Your task to perform on an android device: turn on showing notifications on the lock screen Image 0: 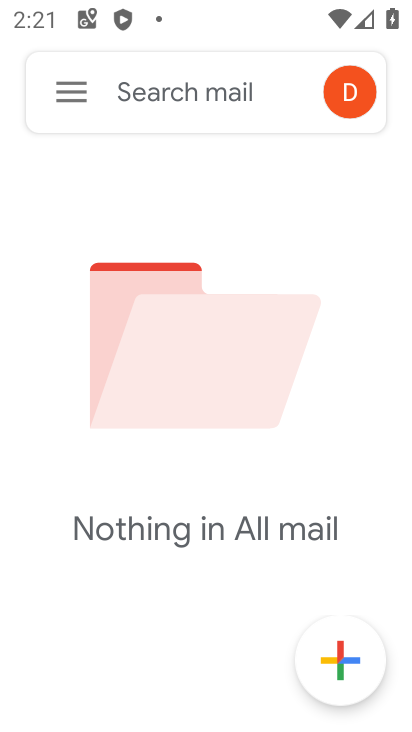
Step 0: press home button
Your task to perform on an android device: turn on showing notifications on the lock screen Image 1: 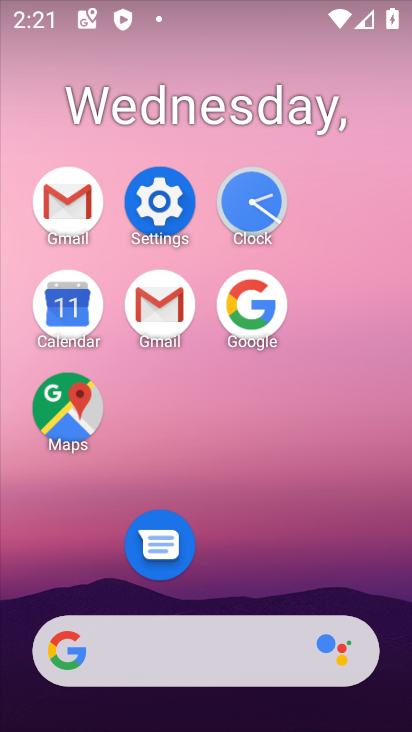
Step 1: click (155, 201)
Your task to perform on an android device: turn on showing notifications on the lock screen Image 2: 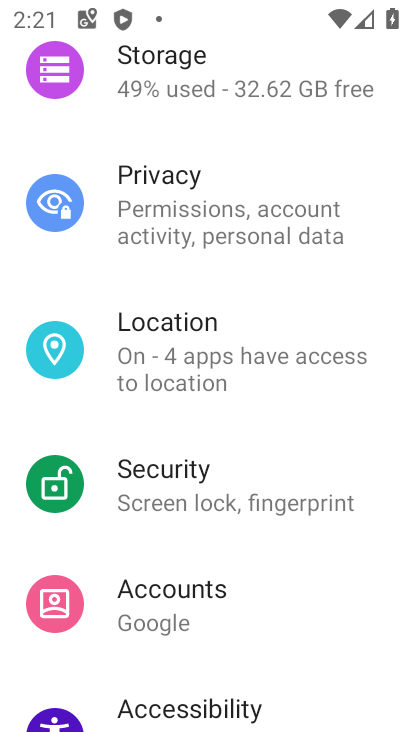
Step 2: drag from (264, 105) to (335, 592)
Your task to perform on an android device: turn on showing notifications on the lock screen Image 3: 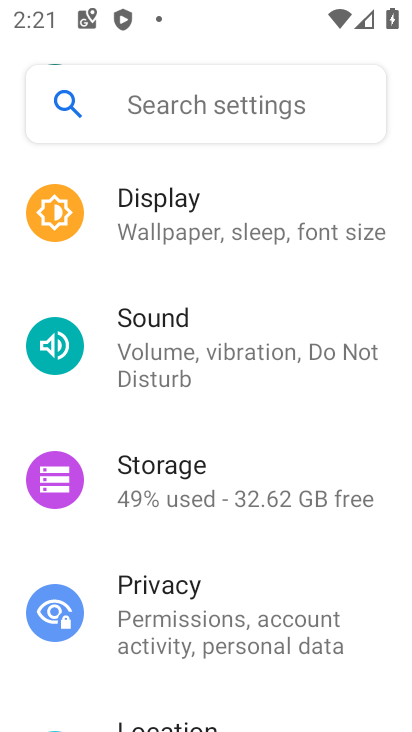
Step 3: drag from (318, 183) to (332, 586)
Your task to perform on an android device: turn on showing notifications on the lock screen Image 4: 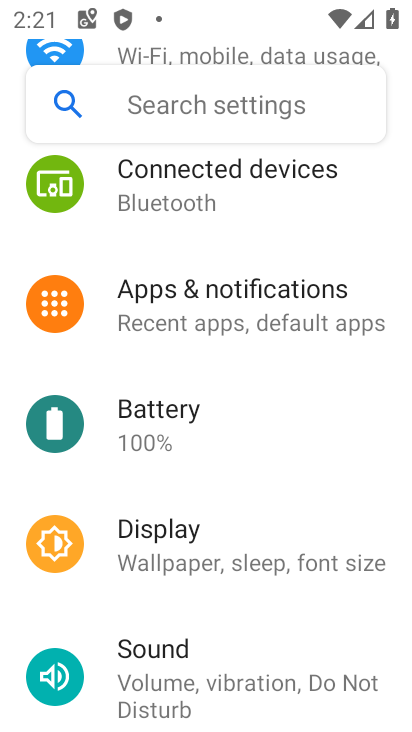
Step 4: click (291, 294)
Your task to perform on an android device: turn on showing notifications on the lock screen Image 5: 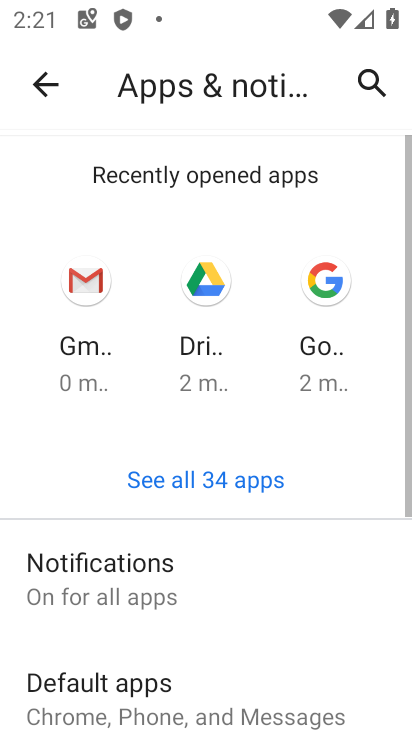
Step 5: click (256, 569)
Your task to perform on an android device: turn on showing notifications on the lock screen Image 6: 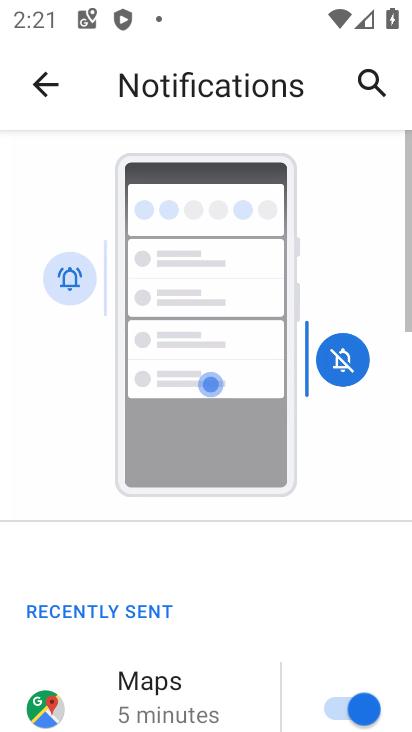
Step 6: drag from (279, 613) to (307, 50)
Your task to perform on an android device: turn on showing notifications on the lock screen Image 7: 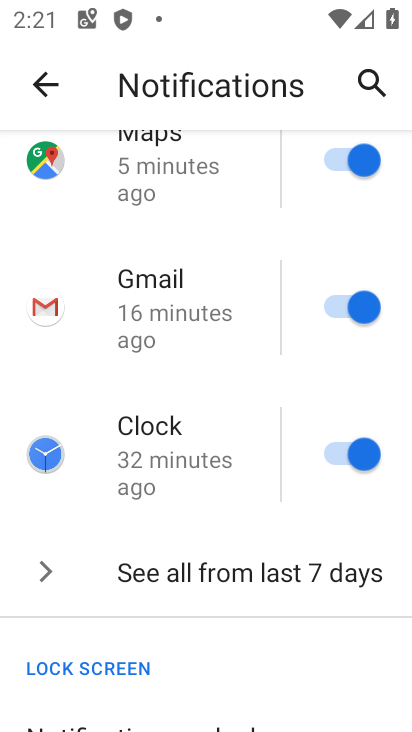
Step 7: drag from (253, 624) to (254, 124)
Your task to perform on an android device: turn on showing notifications on the lock screen Image 8: 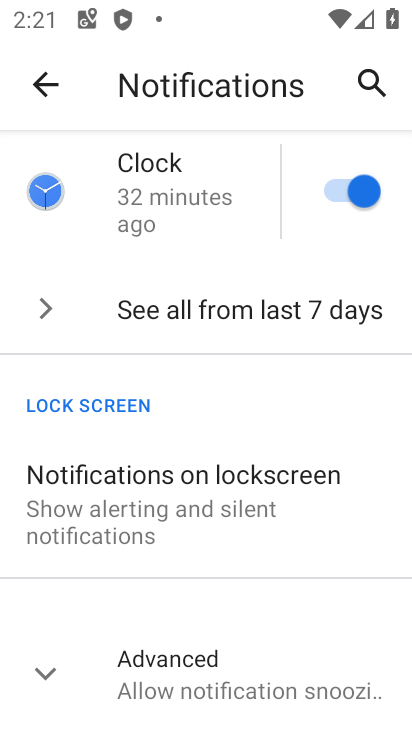
Step 8: click (207, 517)
Your task to perform on an android device: turn on showing notifications on the lock screen Image 9: 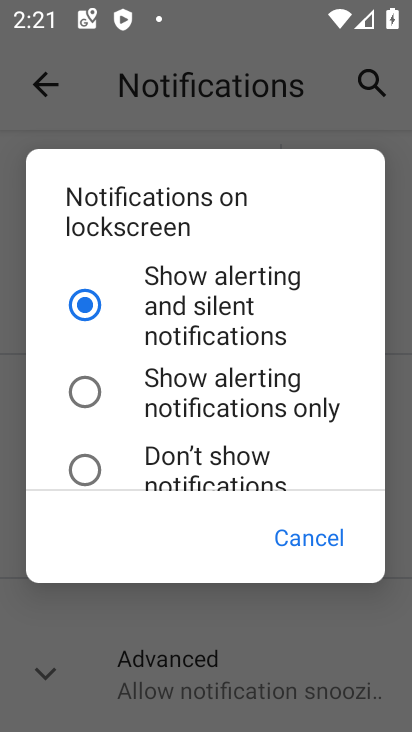
Step 9: task complete